Your task to perform on an android device: set default search engine in the chrome app Image 0: 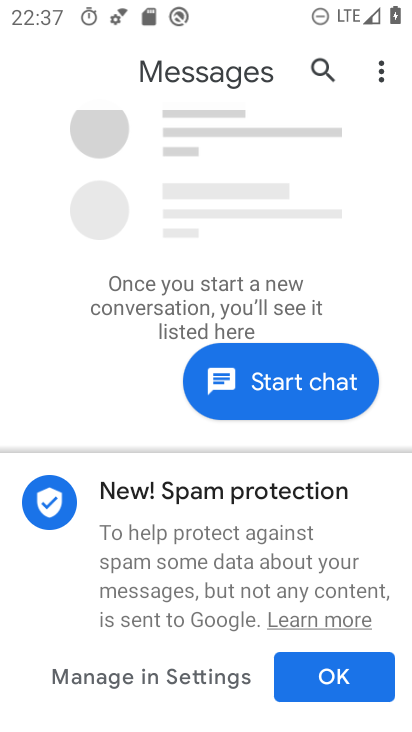
Step 0: press home button
Your task to perform on an android device: set default search engine in the chrome app Image 1: 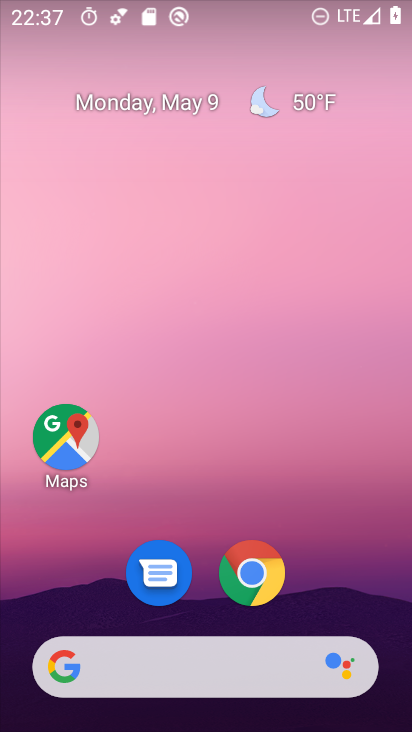
Step 1: click (261, 575)
Your task to perform on an android device: set default search engine in the chrome app Image 2: 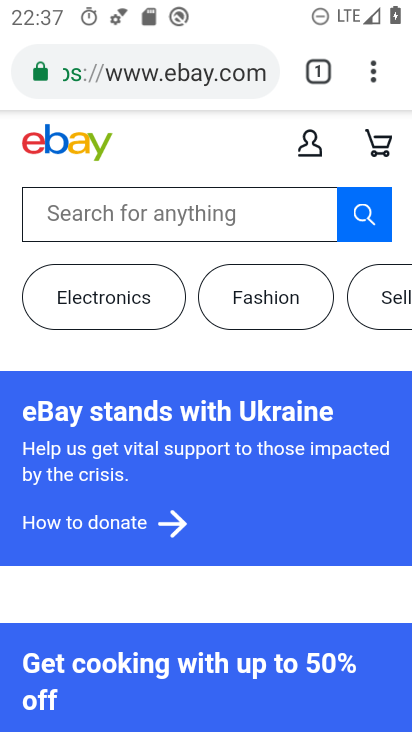
Step 2: drag from (374, 63) to (218, 572)
Your task to perform on an android device: set default search engine in the chrome app Image 3: 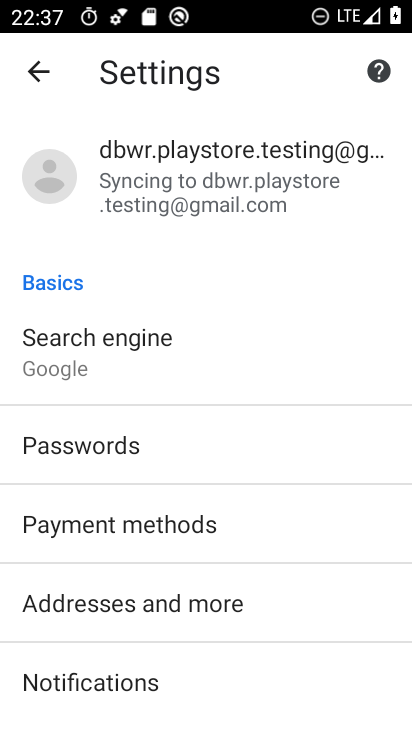
Step 3: click (122, 351)
Your task to perform on an android device: set default search engine in the chrome app Image 4: 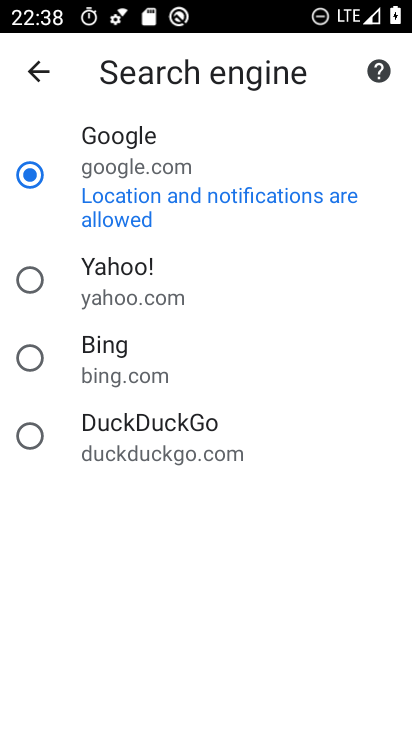
Step 4: task complete